Your task to perform on an android device: Open display settings Image 0: 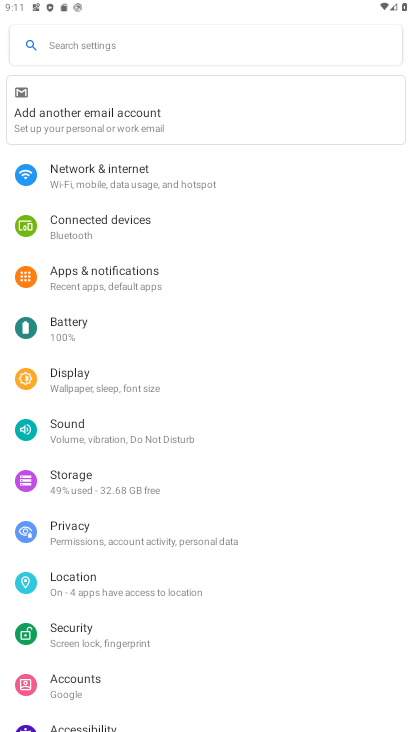
Step 0: click (64, 380)
Your task to perform on an android device: Open display settings Image 1: 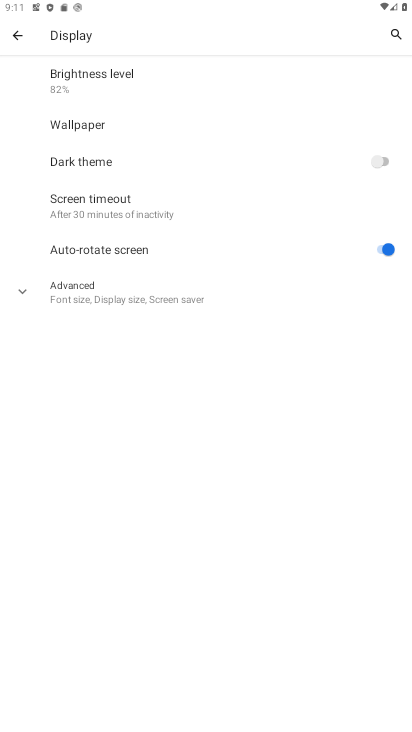
Step 1: task complete